Your task to perform on an android device: open sync settings in chrome Image 0: 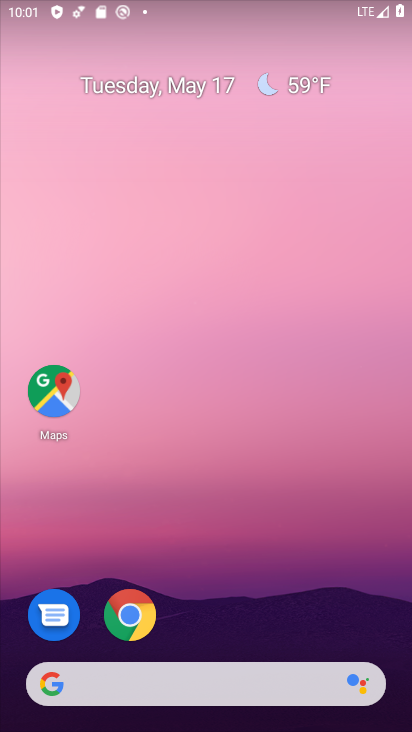
Step 0: press home button
Your task to perform on an android device: open sync settings in chrome Image 1: 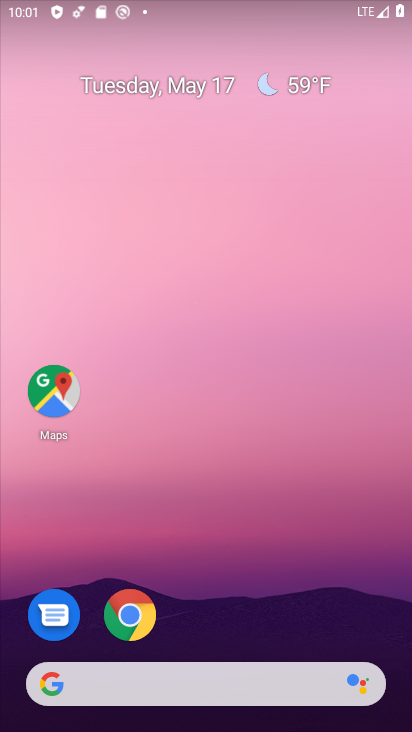
Step 1: click (137, 620)
Your task to perform on an android device: open sync settings in chrome Image 2: 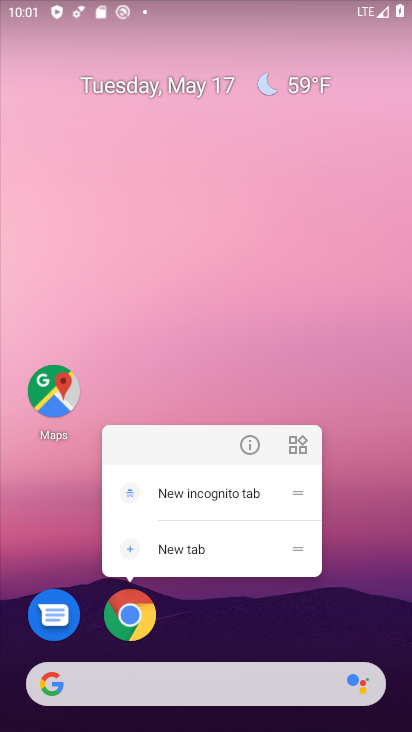
Step 2: click (137, 604)
Your task to perform on an android device: open sync settings in chrome Image 3: 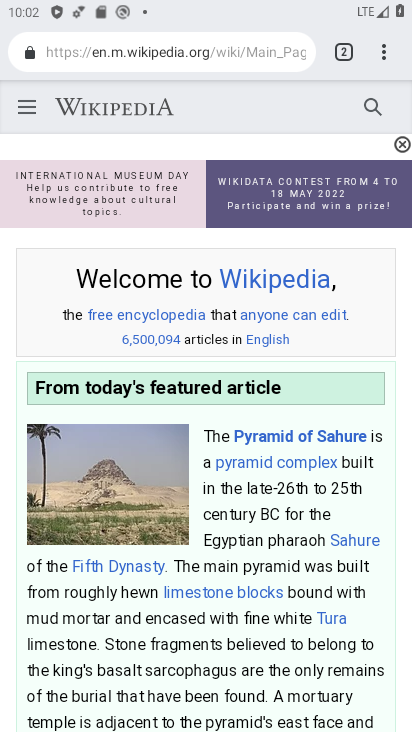
Step 3: click (386, 51)
Your task to perform on an android device: open sync settings in chrome Image 4: 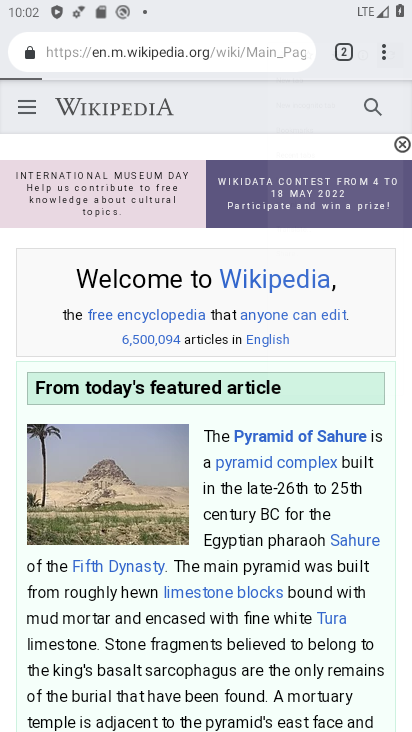
Step 4: drag from (386, 51) to (298, 619)
Your task to perform on an android device: open sync settings in chrome Image 5: 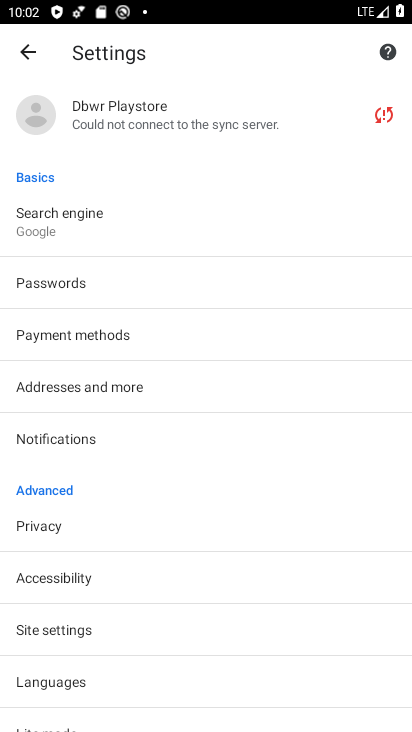
Step 5: drag from (122, 674) to (174, 667)
Your task to perform on an android device: open sync settings in chrome Image 6: 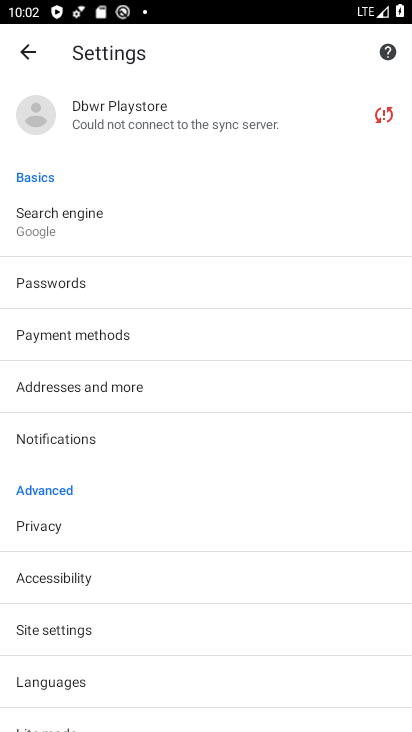
Step 6: click (149, 127)
Your task to perform on an android device: open sync settings in chrome Image 7: 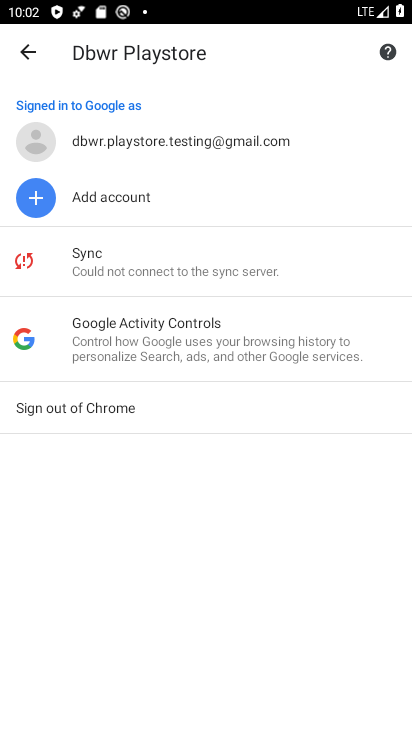
Step 7: click (128, 256)
Your task to perform on an android device: open sync settings in chrome Image 8: 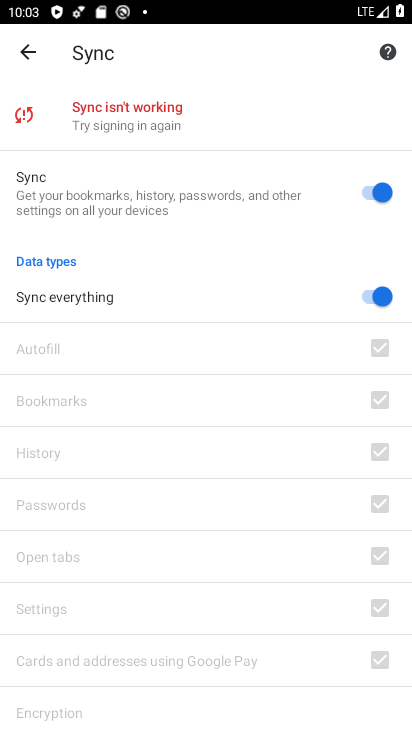
Step 8: task complete